Your task to perform on an android device: Open Youtube and go to the subscriptions tab Image 0: 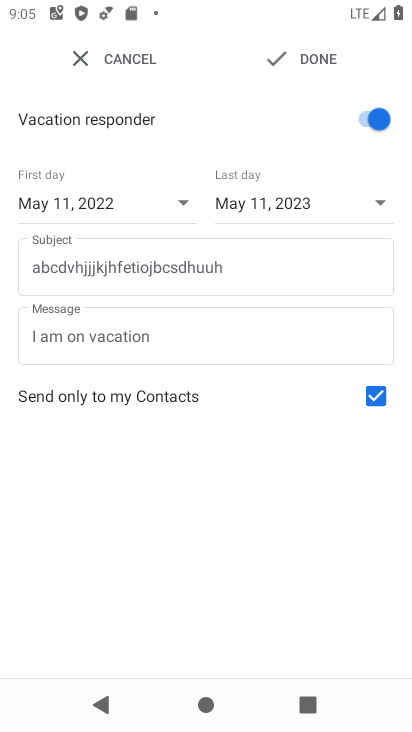
Step 0: press home button
Your task to perform on an android device: Open Youtube and go to the subscriptions tab Image 1: 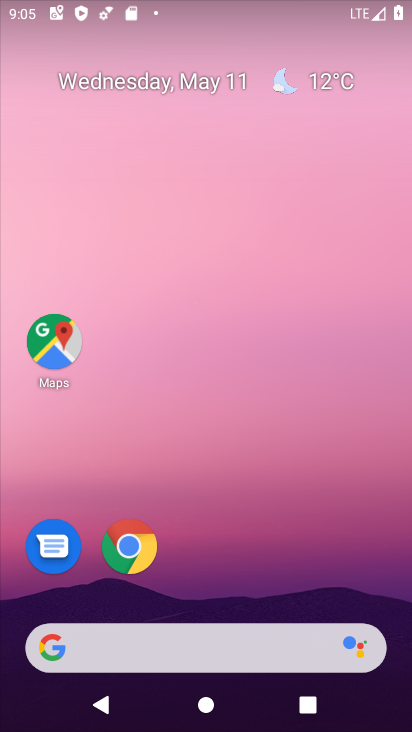
Step 1: drag from (348, 598) to (316, 147)
Your task to perform on an android device: Open Youtube and go to the subscriptions tab Image 2: 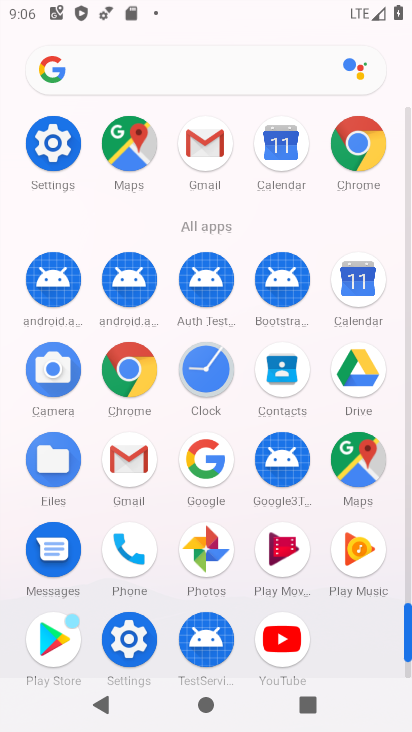
Step 2: click (283, 634)
Your task to perform on an android device: Open Youtube and go to the subscriptions tab Image 3: 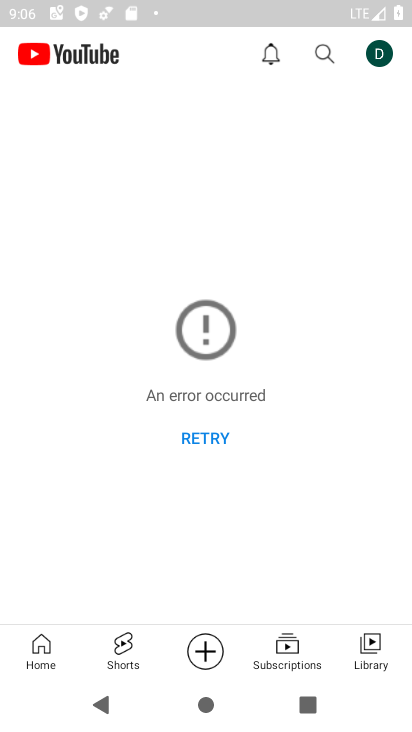
Step 3: click (283, 642)
Your task to perform on an android device: Open Youtube and go to the subscriptions tab Image 4: 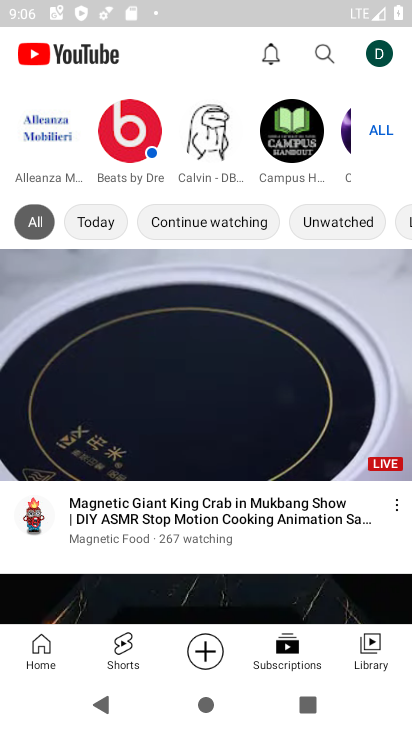
Step 4: task complete